Your task to perform on an android device: Play the new Katy Perry video on YouTube Image 0: 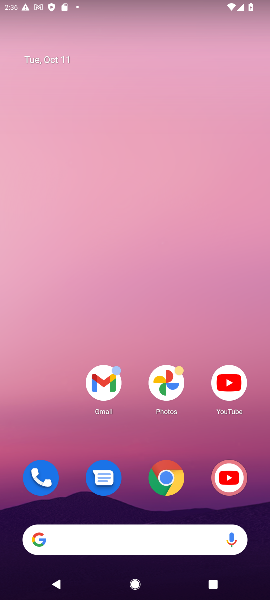
Step 0: click (238, 482)
Your task to perform on an android device: Play the new Katy Perry video on YouTube Image 1: 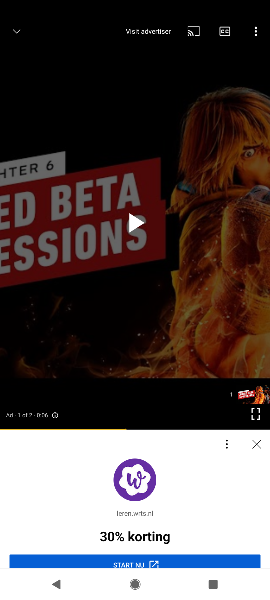
Step 1: click (11, 38)
Your task to perform on an android device: Play the new Katy Perry video on YouTube Image 2: 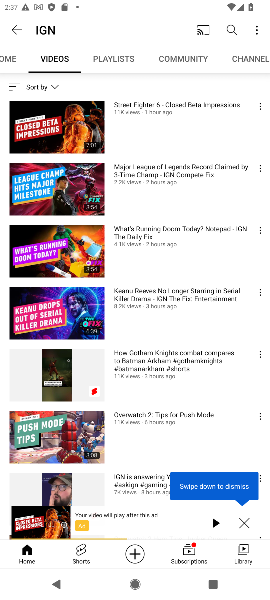
Step 2: click (31, 552)
Your task to perform on an android device: Play the new Katy Perry video on YouTube Image 3: 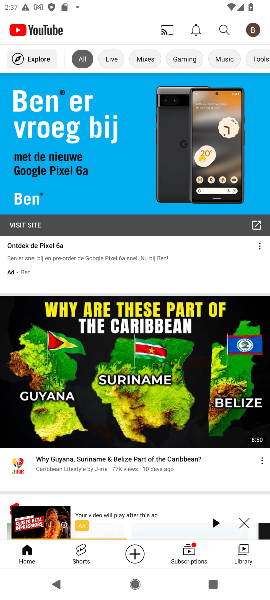
Step 3: click (225, 29)
Your task to perform on an android device: Play the new Katy Perry video on YouTube Image 4: 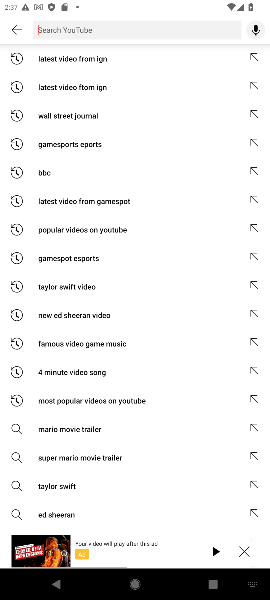
Step 4: type "katy perry"
Your task to perform on an android device: Play the new Katy Perry video on YouTube Image 5: 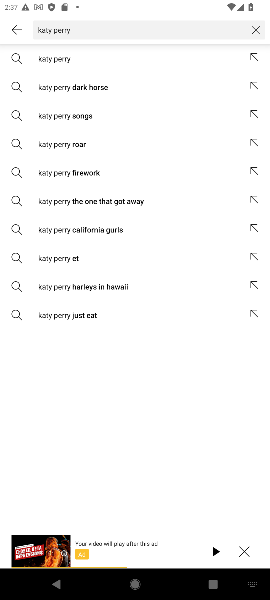
Step 5: click (87, 61)
Your task to perform on an android device: Play the new Katy Perry video on YouTube Image 6: 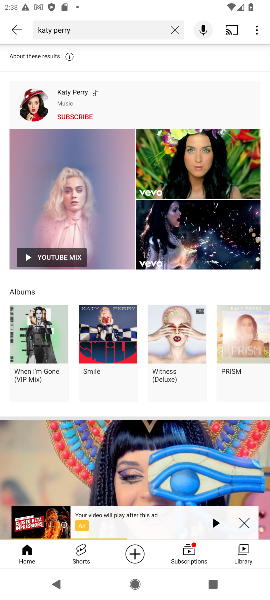
Step 6: click (30, 106)
Your task to perform on an android device: Play the new Katy Perry video on YouTube Image 7: 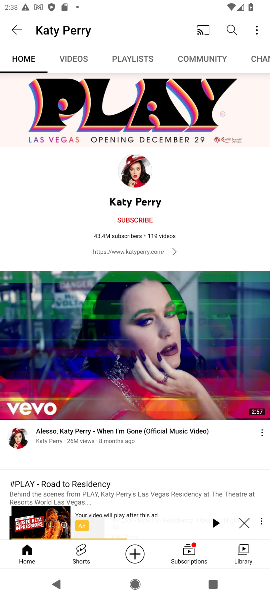
Step 7: click (62, 62)
Your task to perform on an android device: Play the new Katy Perry video on YouTube Image 8: 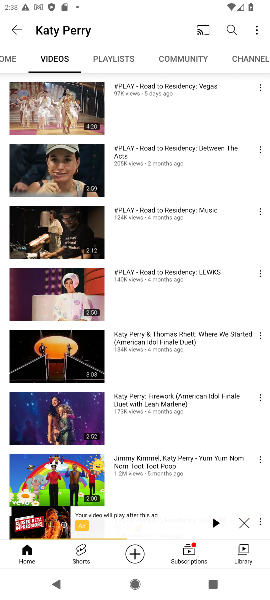
Step 8: click (103, 114)
Your task to perform on an android device: Play the new Katy Perry video on YouTube Image 9: 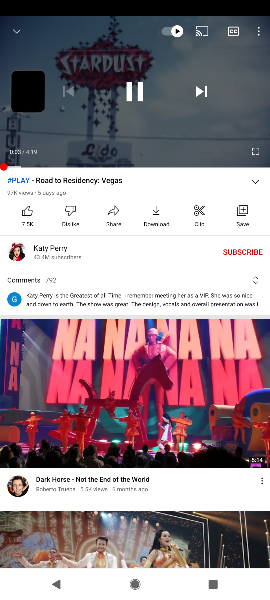
Step 9: task complete